Your task to perform on an android device: set the timer Image 0: 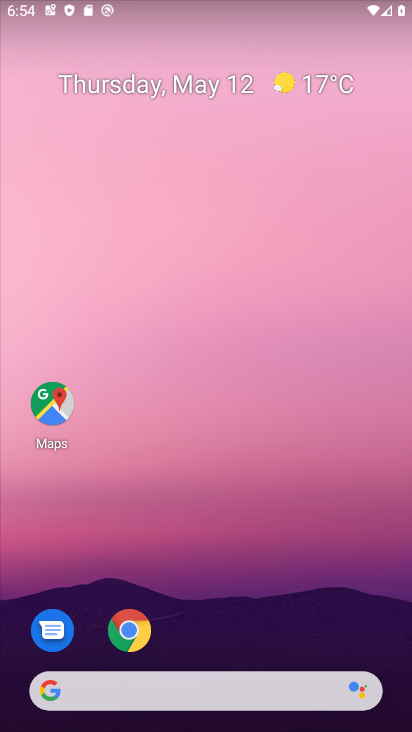
Step 0: drag from (375, 647) to (275, 18)
Your task to perform on an android device: set the timer Image 1: 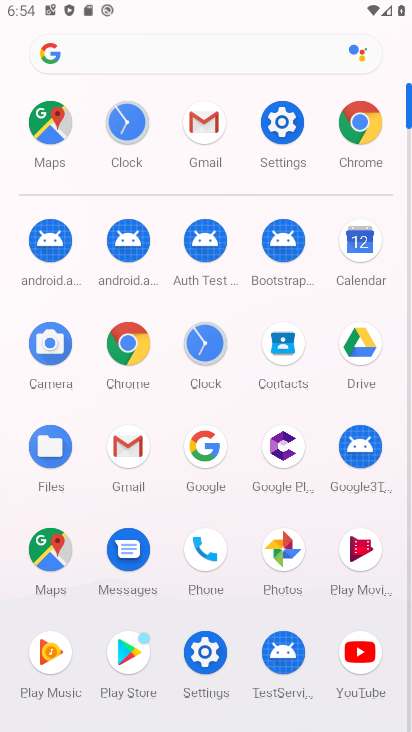
Step 1: click (122, 138)
Your task to perform on an android device: set the timer Image 2: 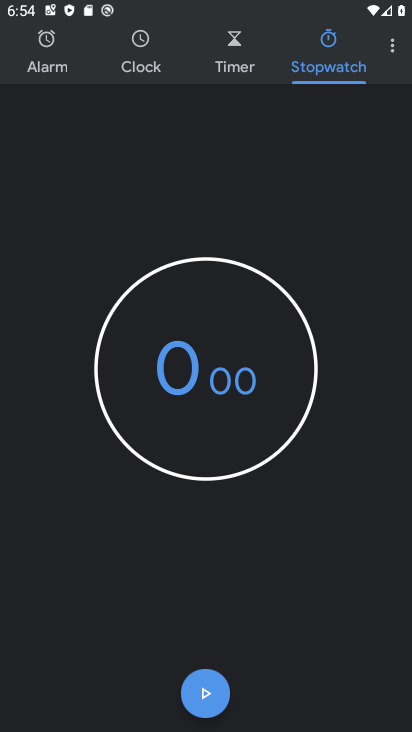
Step 2: click (389, 35)
Your task to perform on an android device: set the timer Image 3: 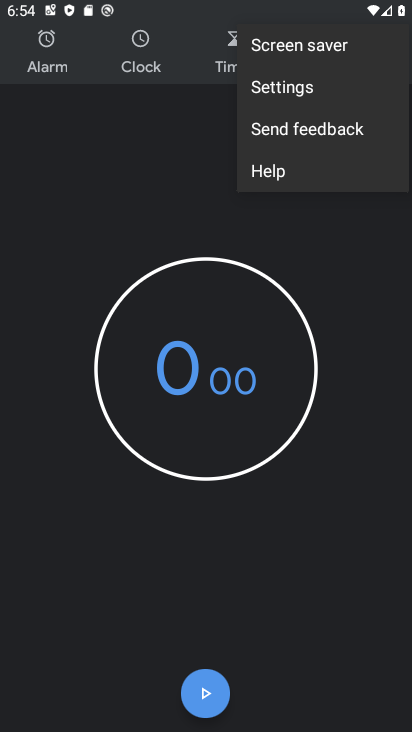
Step 3: click (282, 84)
Your task to perform on an android device: set the timer Image 4: 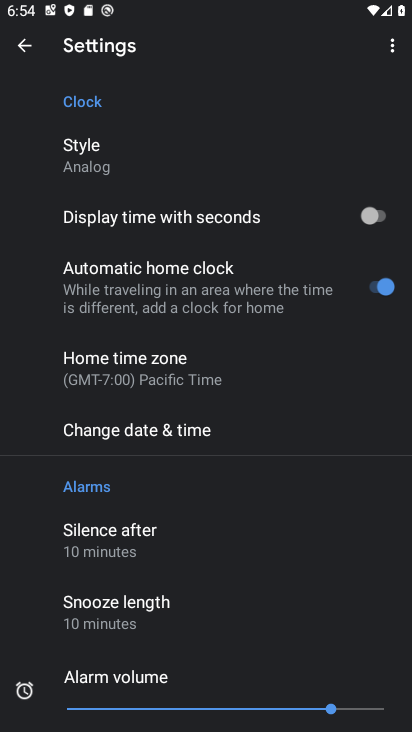
Step 4: click (128, 403)
Your task to perform on an android device: set the timer Image 5: 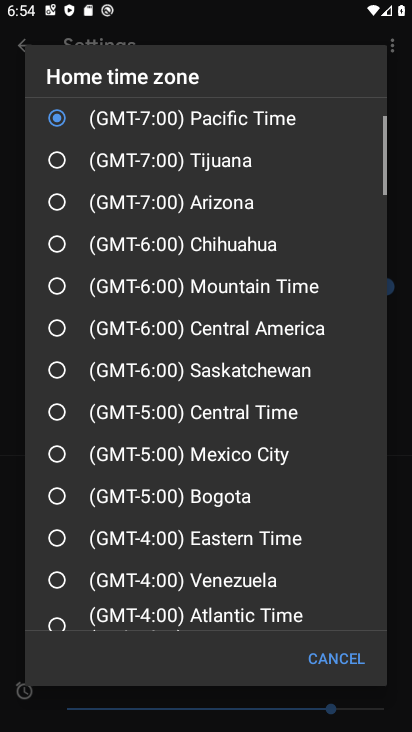
Step 5: click (127, 402)
Your task to perform on an android device: set the timer Image 6: 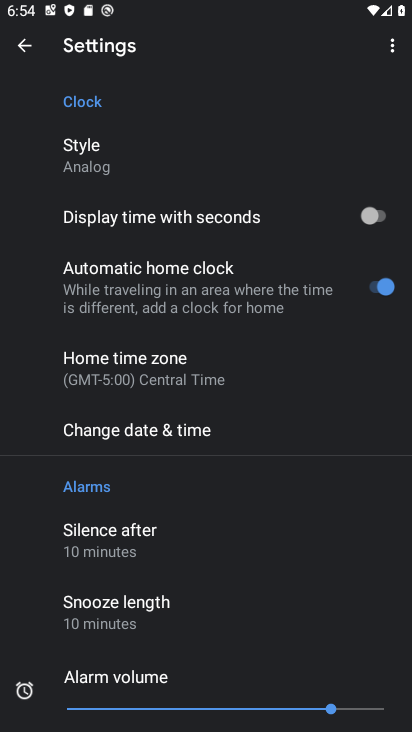
Step 6: task complete